Your task to perform on an android device: make emails show in primary in the gmail app Image 0: 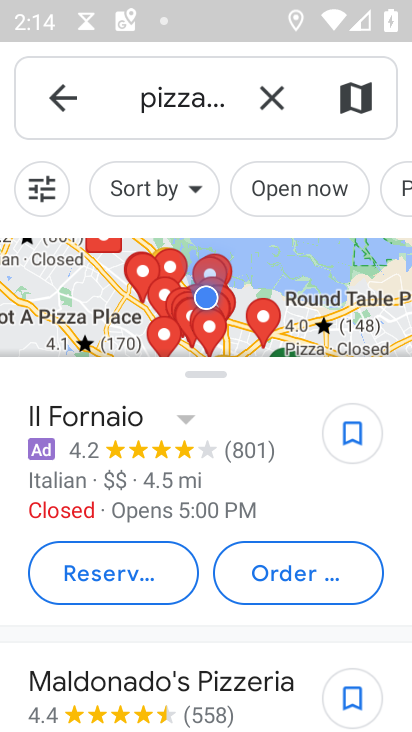
Step 0: press home button
Your task to perform on an android device: make emails show in primary in the gmail app Image 1: 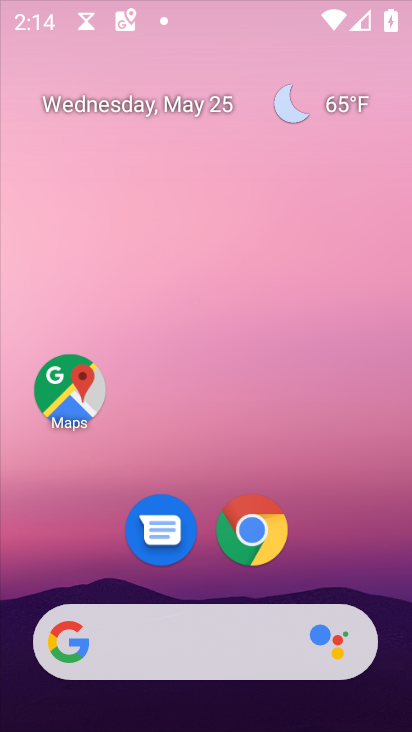
Step 1: drag from (279, 506) to (286, 282)
Your task to perform on an android device: make emails show in primary in the gmail app Image 2: 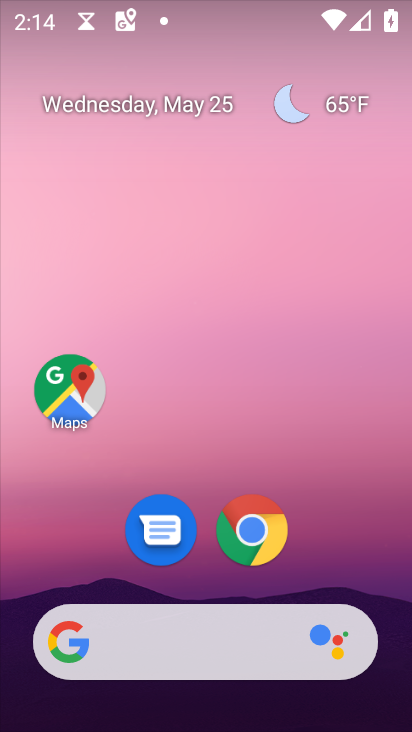
Step 2: drag from (380, 560) to (356, 329)
Your task to perform on an android device: make emails show in primary in the gmail app Image 3: 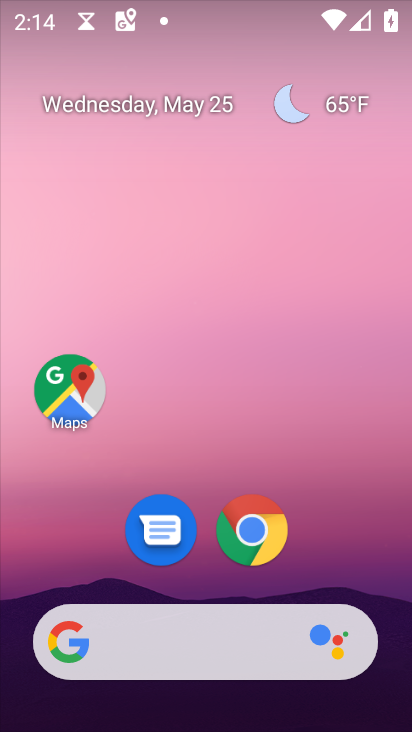
Step 3: drag from (355, 585) to (342, 266)
Your task to perform on an android device: make emails show in primary in the gmail app Image 4: 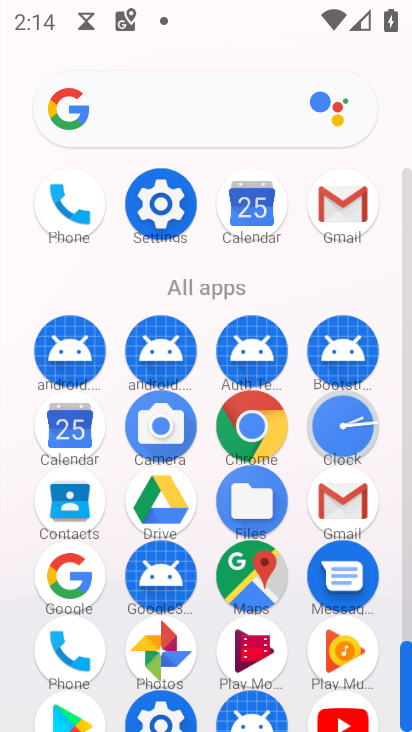
Step 4: click (322, 211)
Your task to perform on an android device: make emails show in primary in the gmail app Image 5: 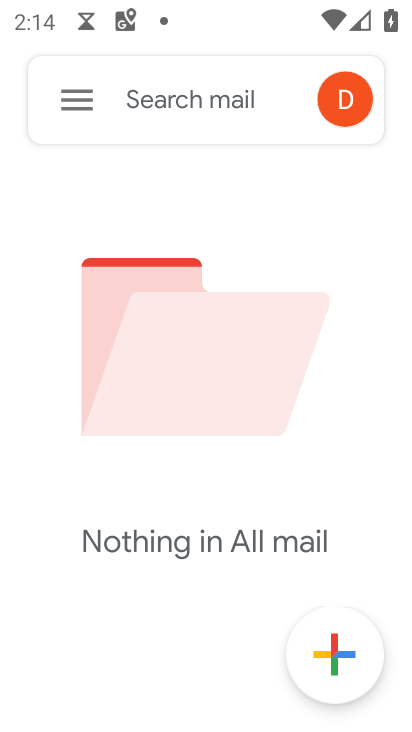
Step 5: click (76, 91)
Your task to perform on an android device: make emails show in primary in the gmail app Image 6: 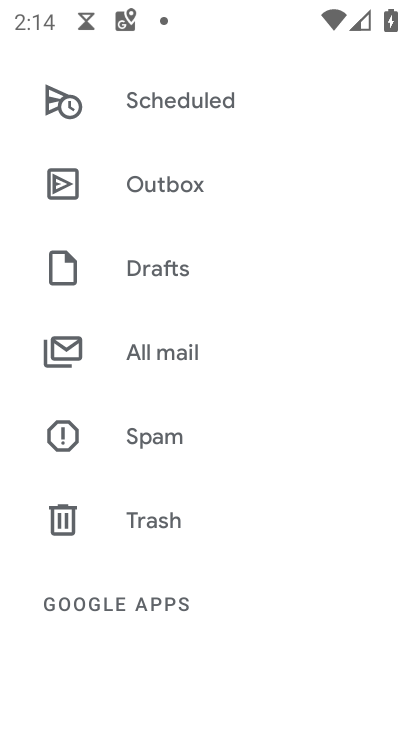
Step 6: drag from (172, 622) to (173, 299)
Your task to perform on an android device: make emails show in primary in the gmail app Image 7: 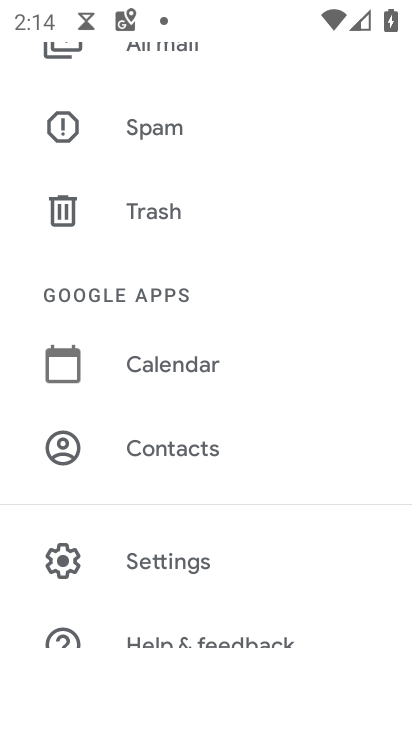
Step 7: click (123, 549)
Your task to perform on an android device: make emails show in primary in the gmail app Image 8: 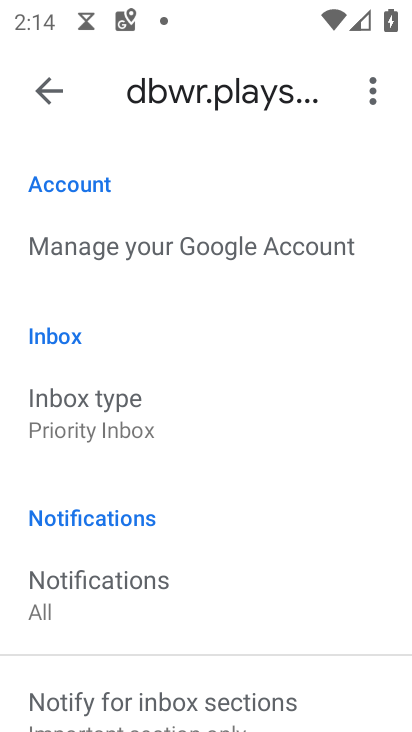
Step 8: task complete